Your task to perform on an android device: create a new album in the google photos Image 0: 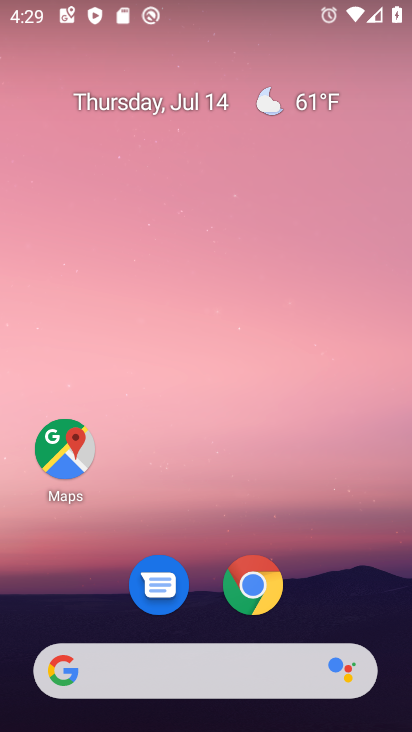
Step 0: drag from (220, 499) to (239, 32)
Your task to perform on an android device: create a new album in the google photos Image 1: 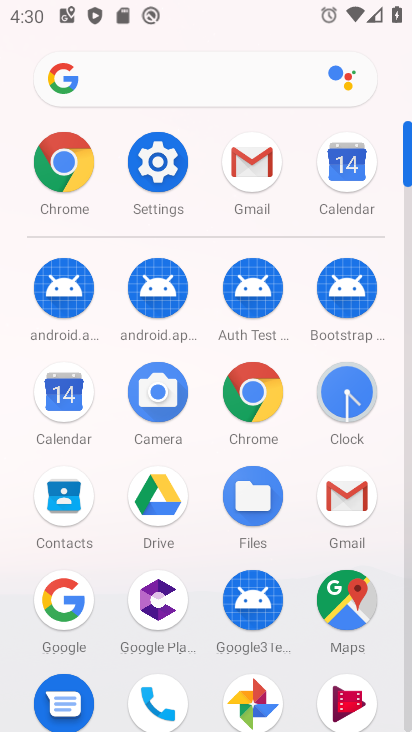
Step 1: drag from (210, 460) to (206, 212)
Your task to perform on an android device: create a new album in the google photos Image 2: 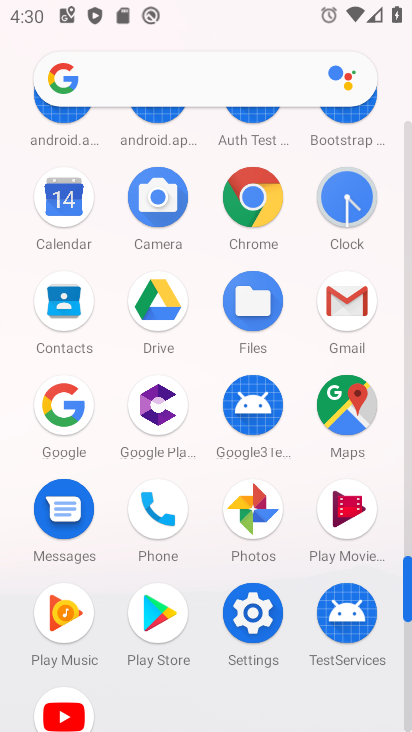
Step 2: click (259, 504)
Your task to perform on an android device: create a new album in the google photos Image 3: 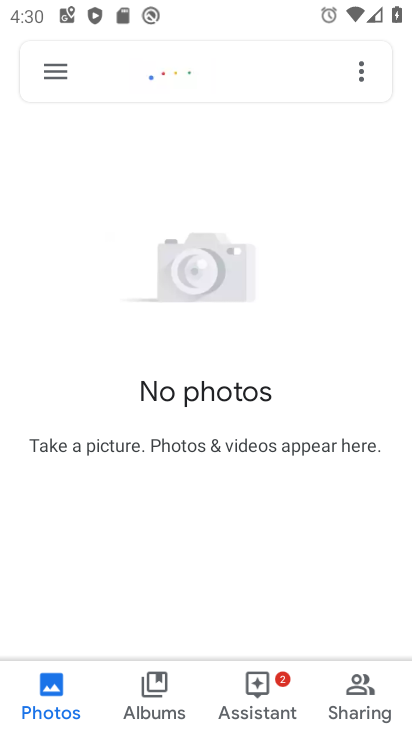
Step 3: click (164, 684)
Your task to perform on an android device: create a new album in the google photos Image 4: 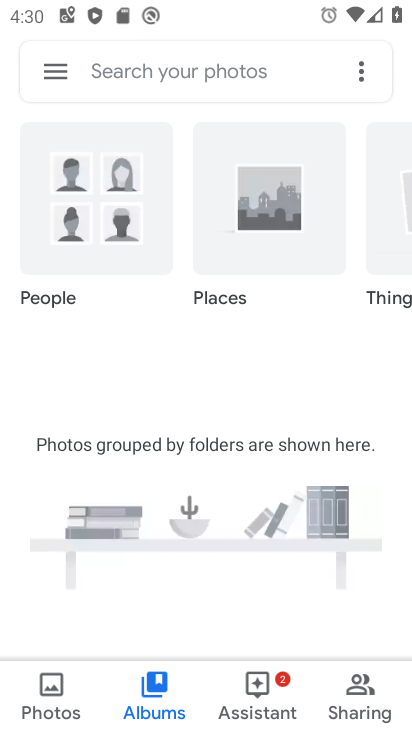
Step 4: drag from (219, 530) to (251, 378)
Your task to perform on an android device: create a new album in the google photos Image 5: 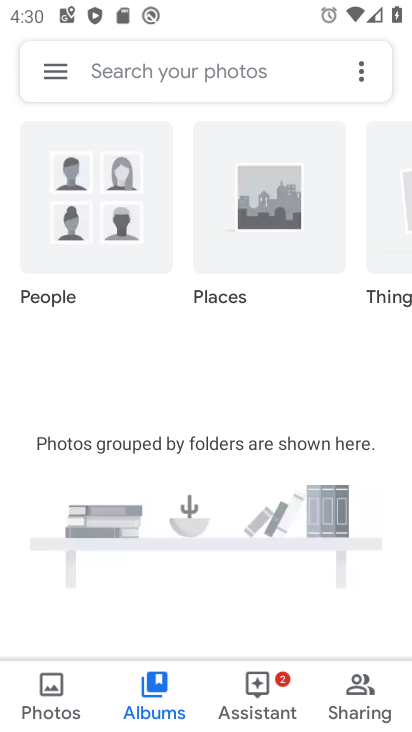
Step 5: drag from (218, 466) to (223, 505)
Your task to perform on an android device: create a new album in the google photos Image 6: 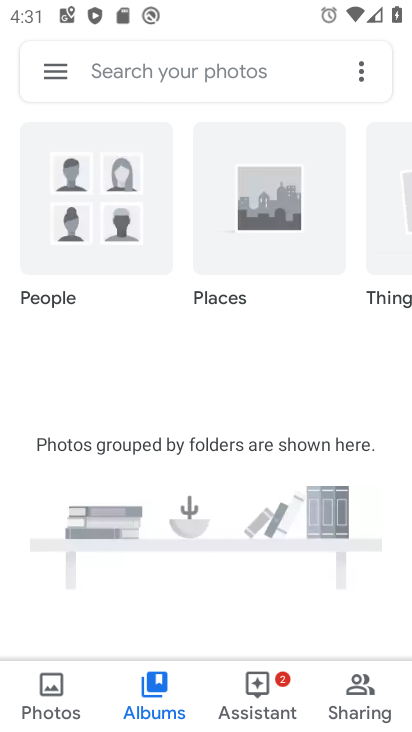
Step 6: click (365, 78)
Your task to perform on an android device: create a new album in the google photos Image 7: 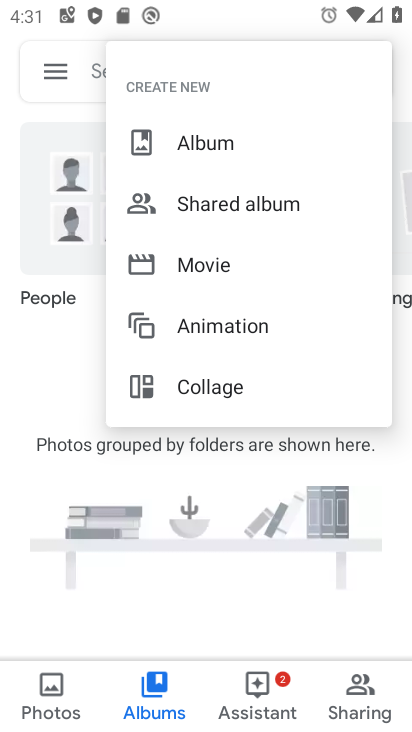
Step 7: click (230, 139)
Your task to perform on an android device: create a new album in the google photos Image 8: 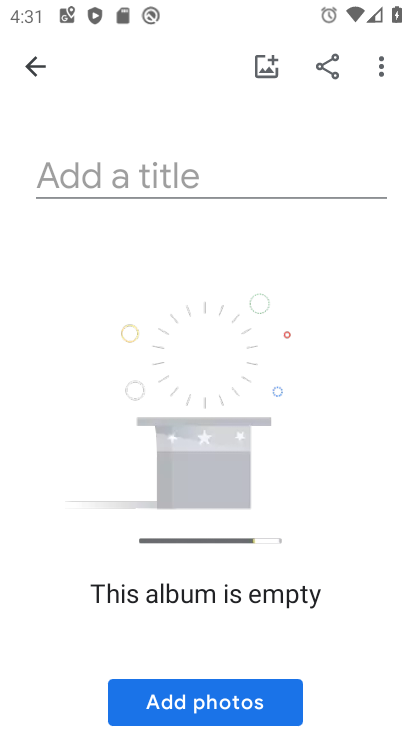
Step 8: click (235, 184)
Your task to perform on an android device: create a new album in the google photos Image 9: 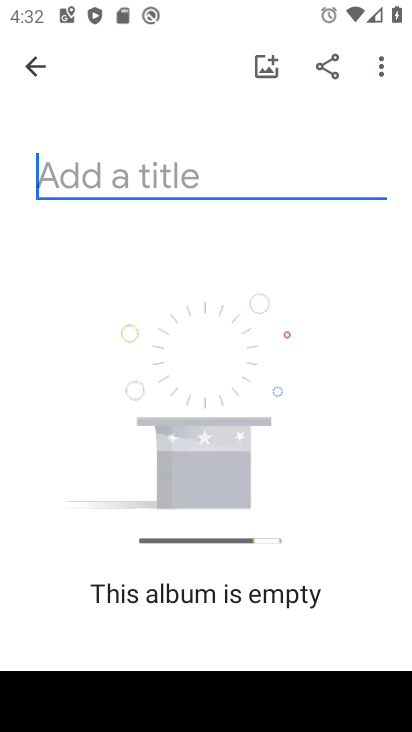
Step 9: type "Prayagraj"
Your task to perform on an android device: create a new album in the google photos Image 10: 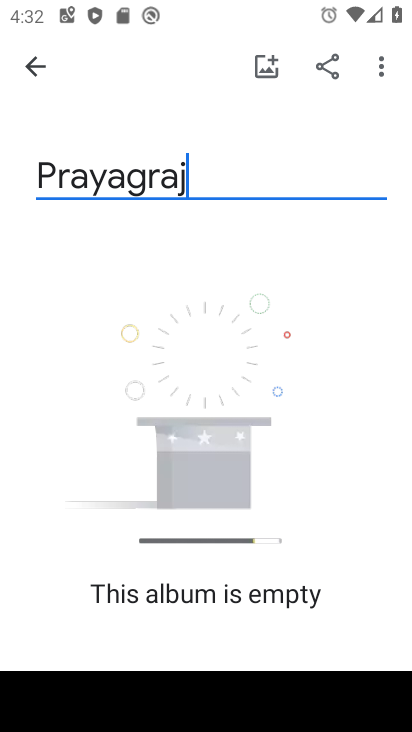
Step 10: click (236, 535)
Your task to perform on an android device: create a new album in the google photos Image 11: 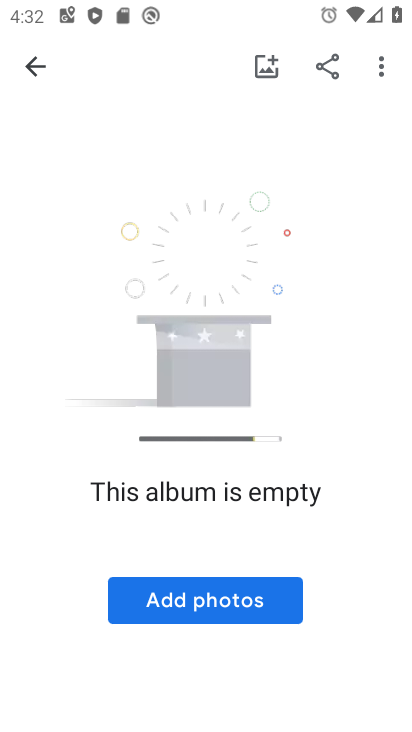
Step 11: click (250, 595)
Your task to perform on an android device: create a new album in the google photos Image 12: 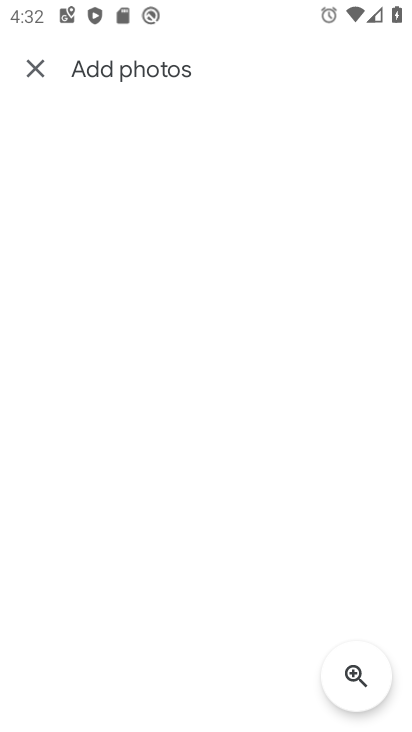
Step 12: task complete